Your task to perform on an android device: toggle airplane mode Image 0: 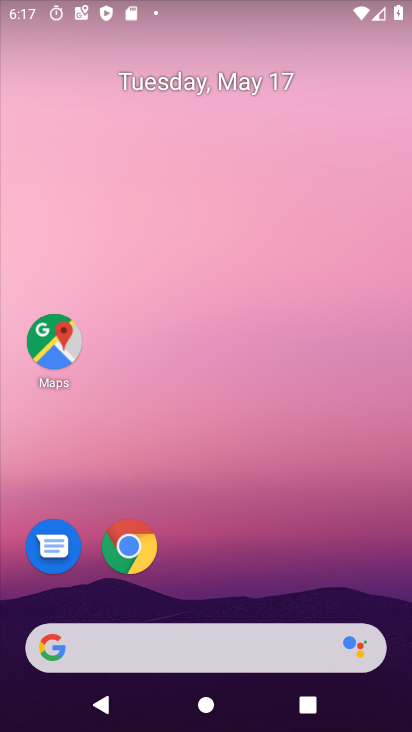
Step 0: drag from (233, 592) to (283, 6)
Your task to perform on an android device: toggle airplane mode Image 1: 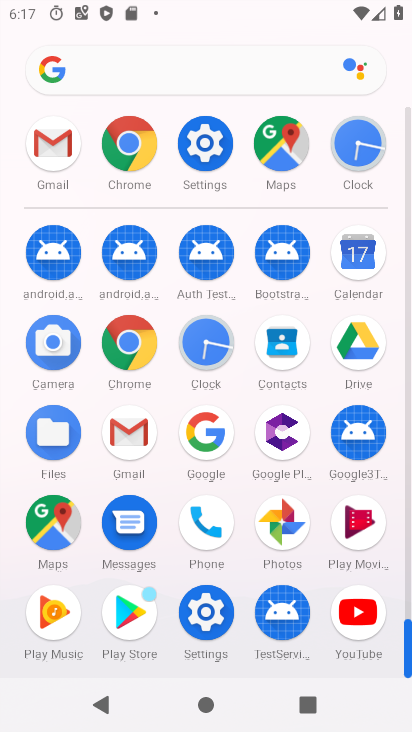
Step 1: click (196, 153)
Your task to perform on an android device: toggle airplane mode Image 2: 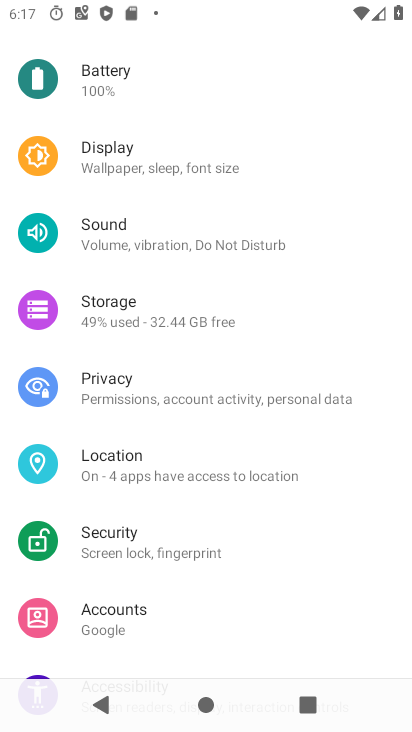
Step 2: drag from (203, 413) to (175, 730)
Your task to perform on an android device: toggle airplane mode Image 3: 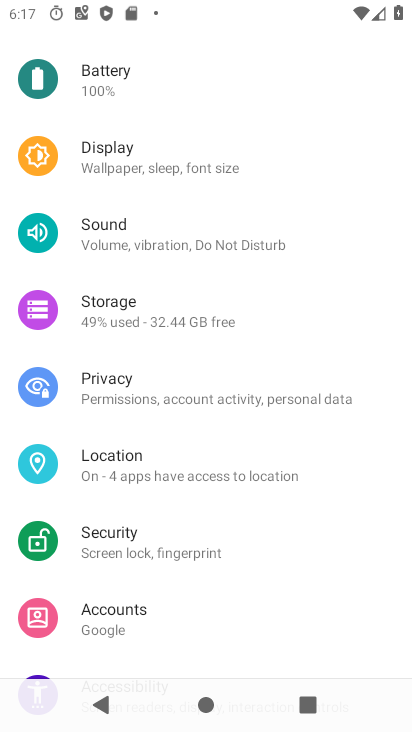
Step 3: drag from (189, 351) to (169, 609)
Your task to perform on an android device: toggle airplane mode Image 4: 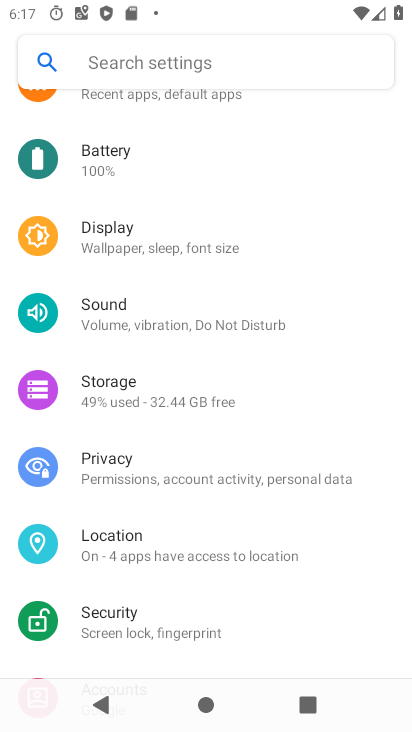
Step 4: drag from (189, 145) to (134, 559)
Your task to perform on an android device: toggle airplane mode Image 5: 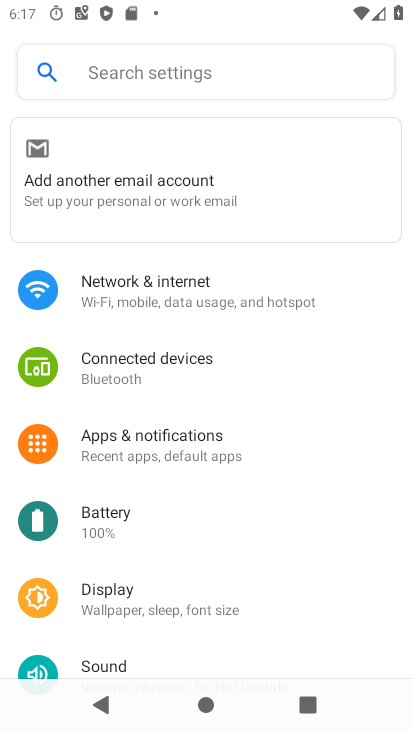
Step 5: click (134, 305)
Your task to perform on an android device: toggle airplane mode Image 6: 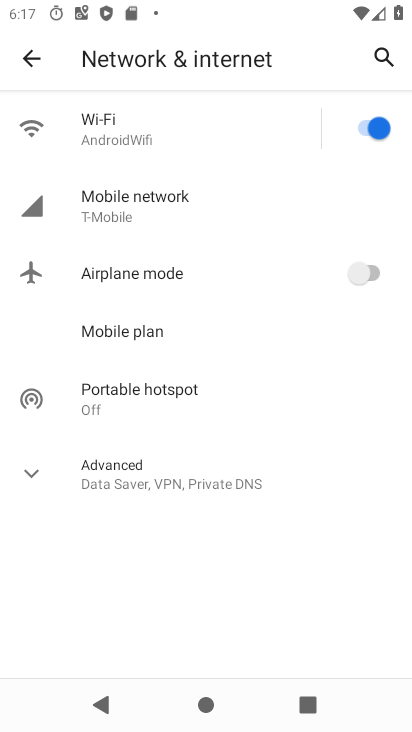
Step 6: click (377, 264)
Your task to perform on an android device: toggle airplane mode Image 7: 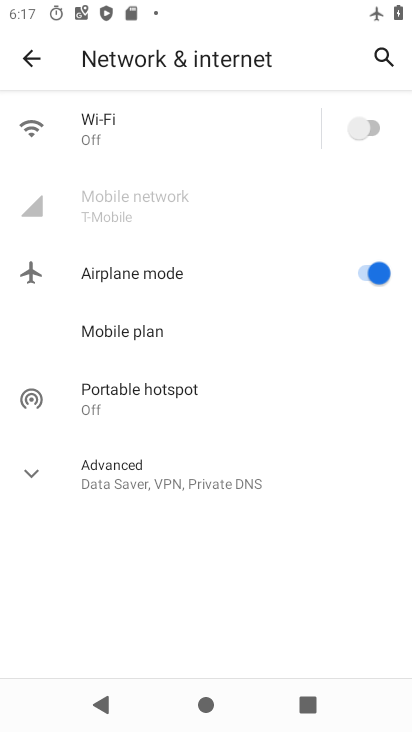
Step 7: task complete